Your task to perform on an android device: open app "McDonald's" (install if not already installed), go to login, and select forgot password Image 0: 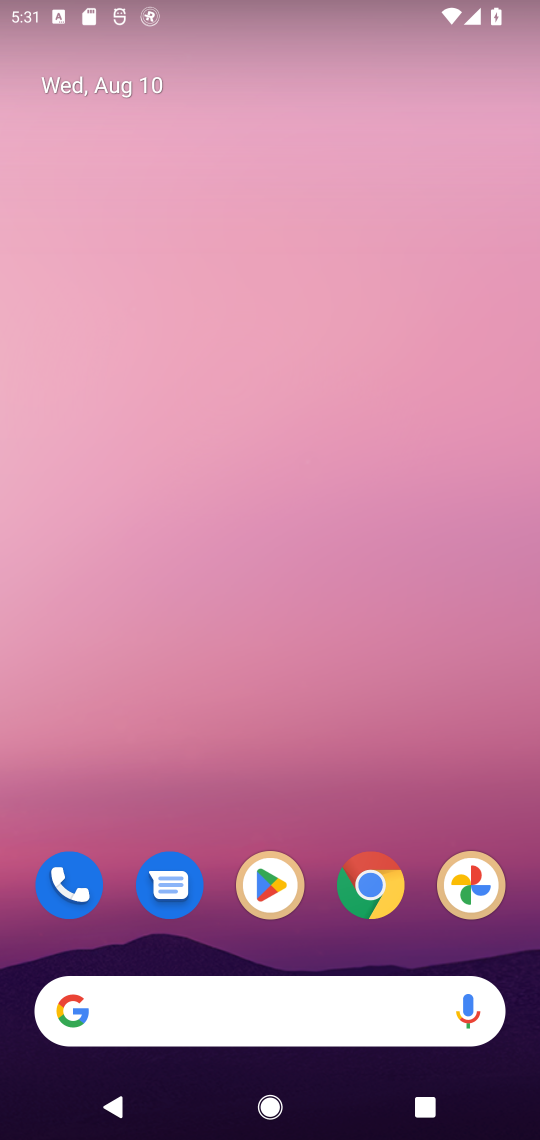
Step 0: click (287, 865)
Your task to perform on an android device: open app "McDonald's" (install if not already installed), go to login, and select forgot password Image 1: 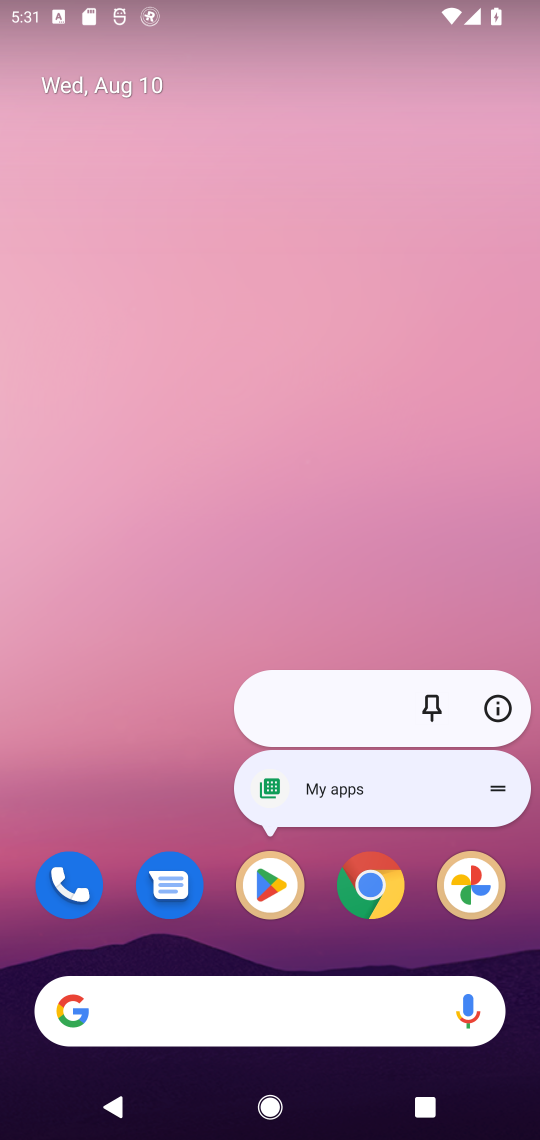
Step 1: click (281, 888)
Your task to perform on an android device: open app "McDonald's" (install if not already installed), go to login, and select forgot password Image 2: 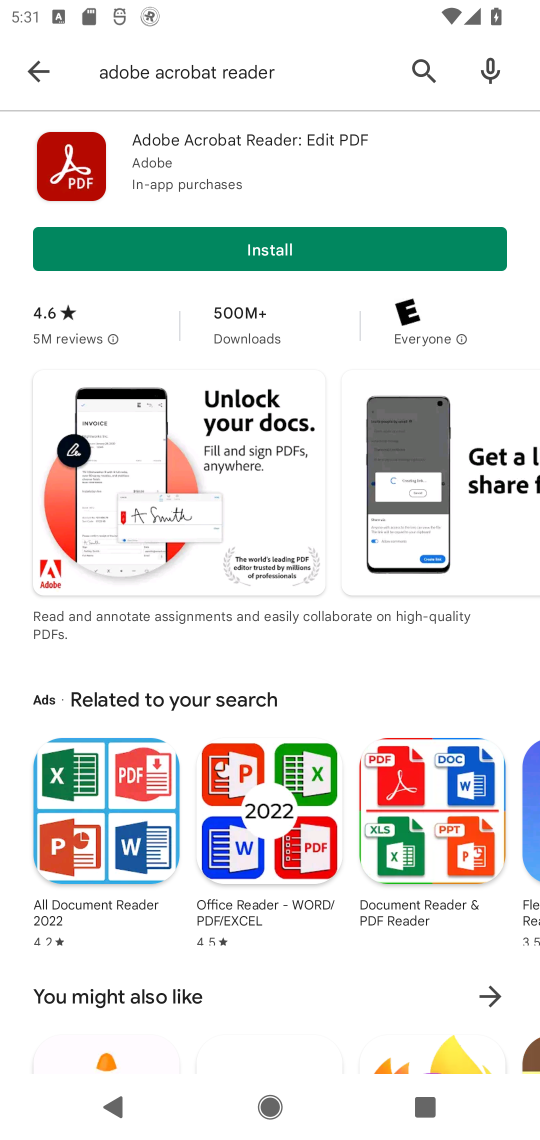
Step 2: click (414, 73)
Your task to perform on an android device: open app "McDonald's" (install if not already installed), go to login, and select forgot password Image 3: 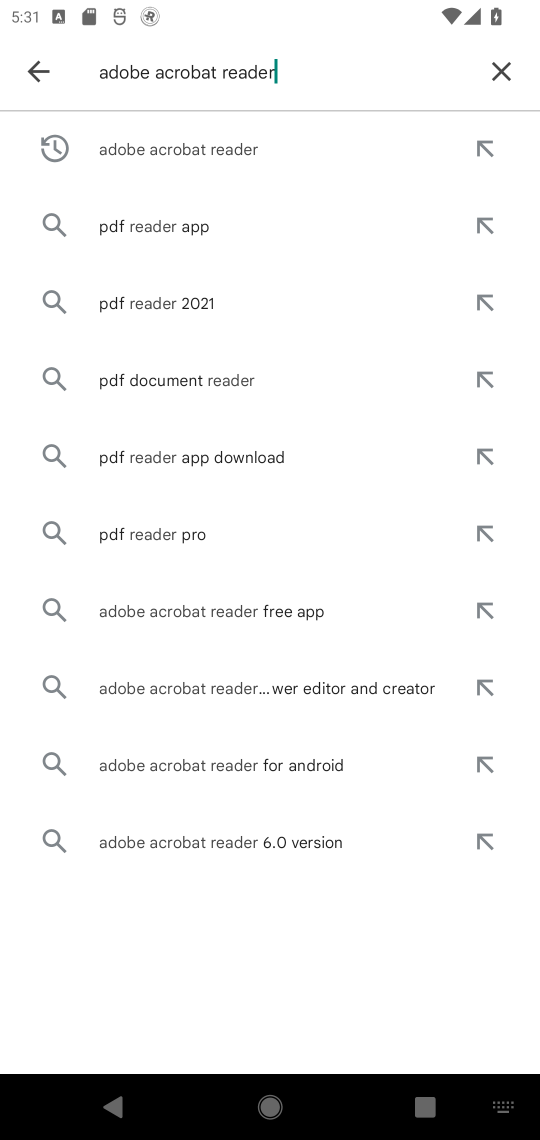
Step 3: click (487, 62)
Your task to perform on an android device: open app "McDonald's" (install if not already installed), go to login, and select forgot password Image 4: 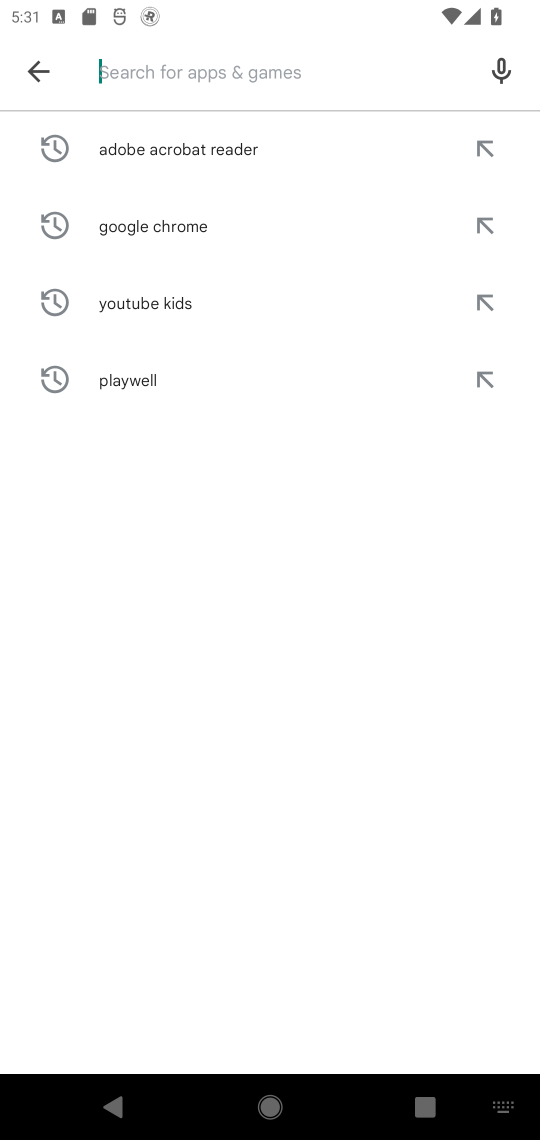
Step 4: click (143, 82)
Your task to perform on an android device: open app "McDonald's" (install if not already installed), go to login, and select forgot password Image 5: 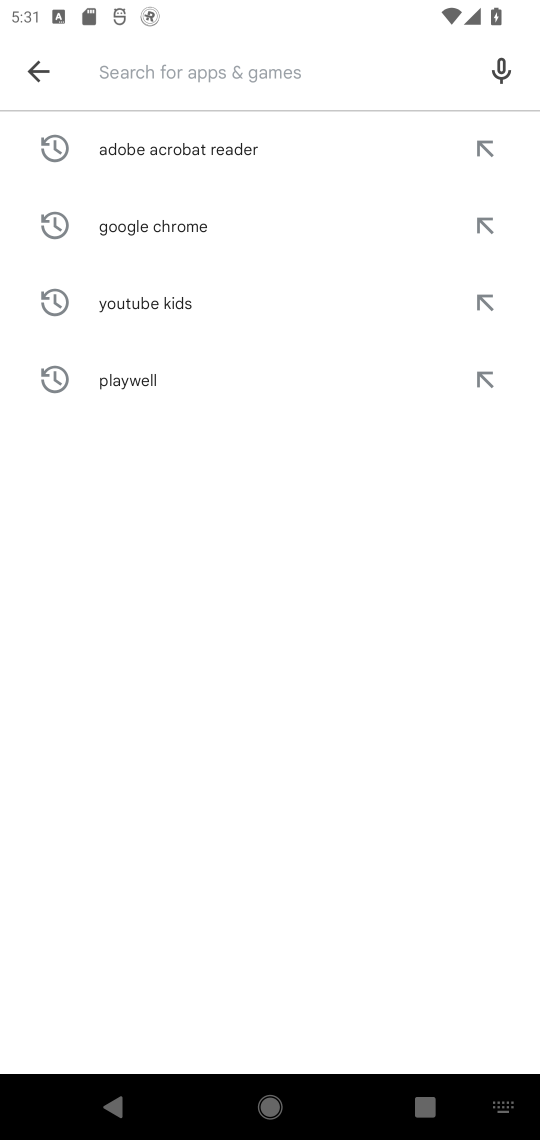
Step 5: type "McDonald's"
Your task to perform on an android device: open app "McDonald's" (install if not already installed), go to login, and select forgot password Image 6: 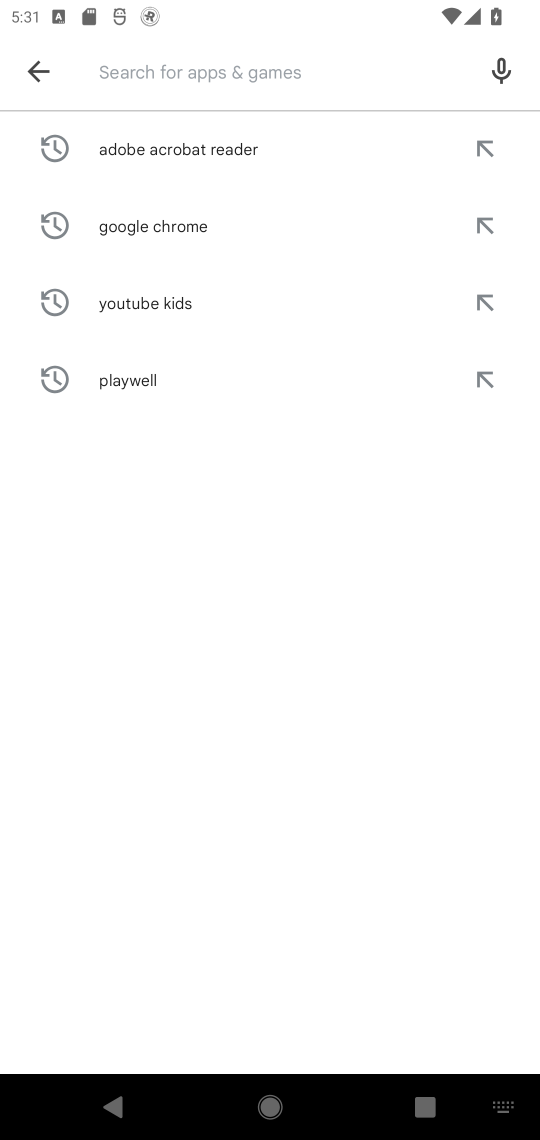
Step 6: click (194, 697)
Your task to perform on an android device: open app "McDonald's" (install if not already installed), go to login, and select forgot password Image 7: 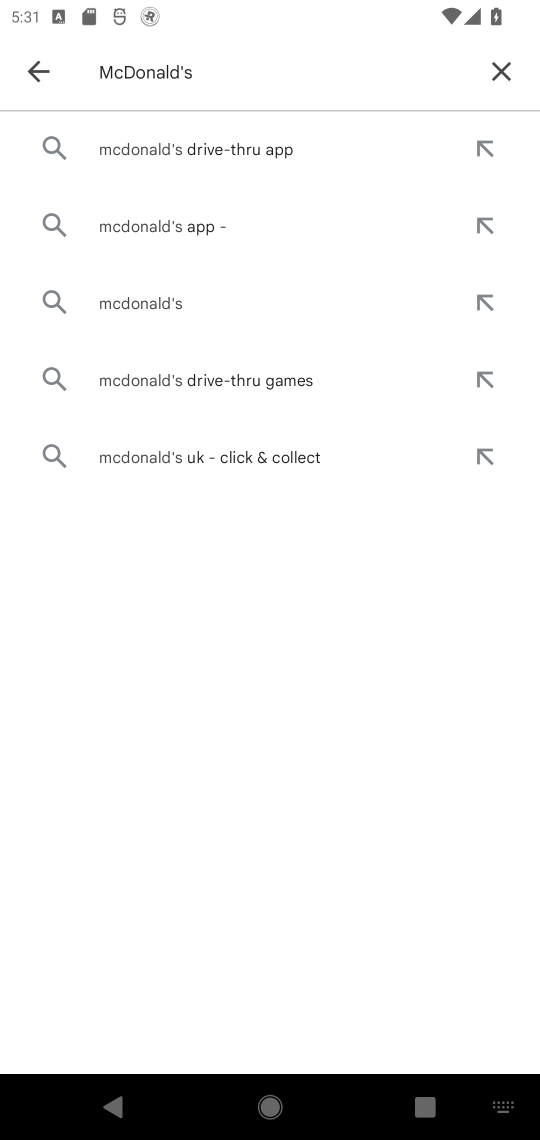
Step 7: click (195, 301)
Your task to perform on an android device: open app "McDonald's" (install if not already installed), go to login, and select forgot password Image 8: 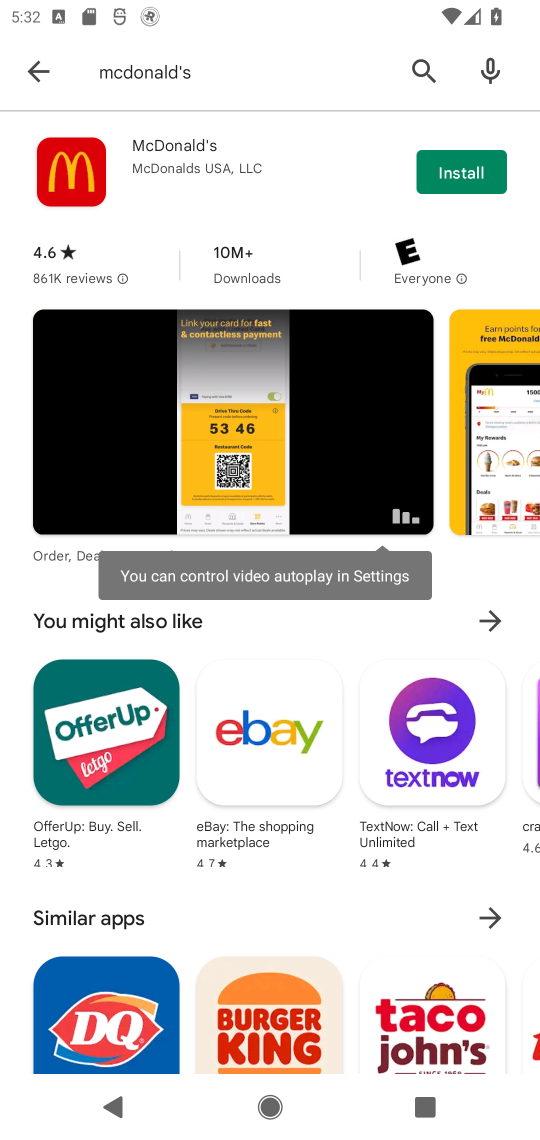
Step 8: click (437, 169)
Your task to perform on an android device: open app "McDonald's" (install if not already installed), go to login, and select forgot password Image 9: 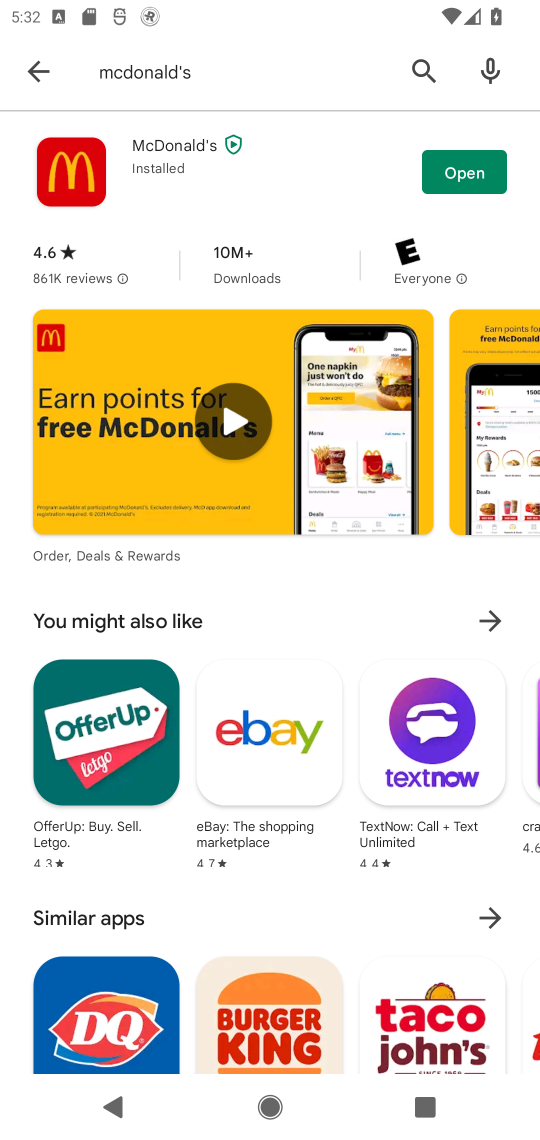
Step 9: click (472, 174)
Your task to perform on an android device: open app "McDonald's" (install if not already installed), go to login, and select forgot password Image 10: 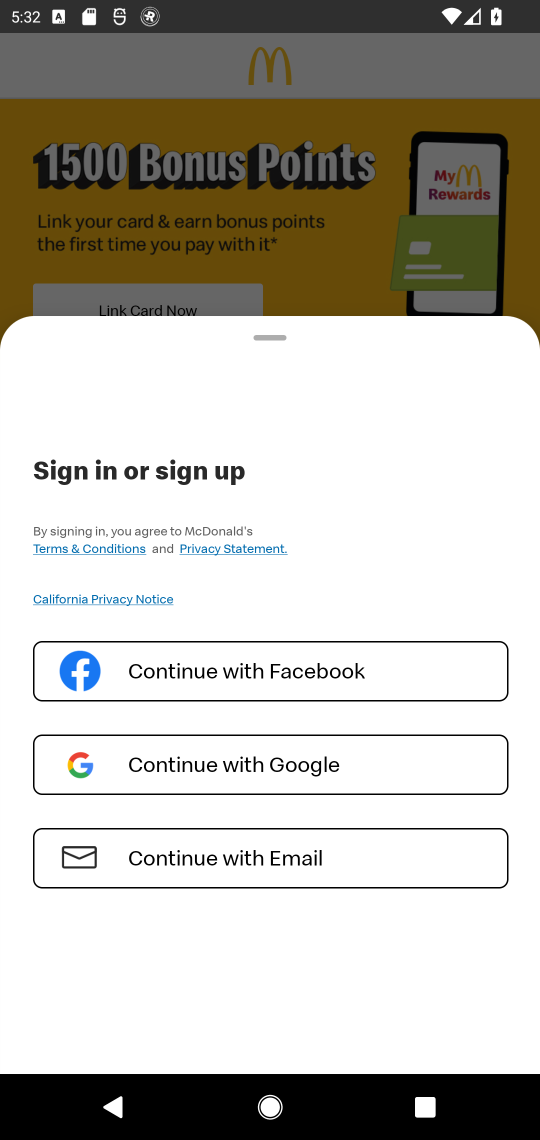
Step 10: drag from (197, 950) to (353, 228)
Your task to perform on an android device: open app "McDonald's" (install if not already installed), go to login, and select forgot password Image 11: 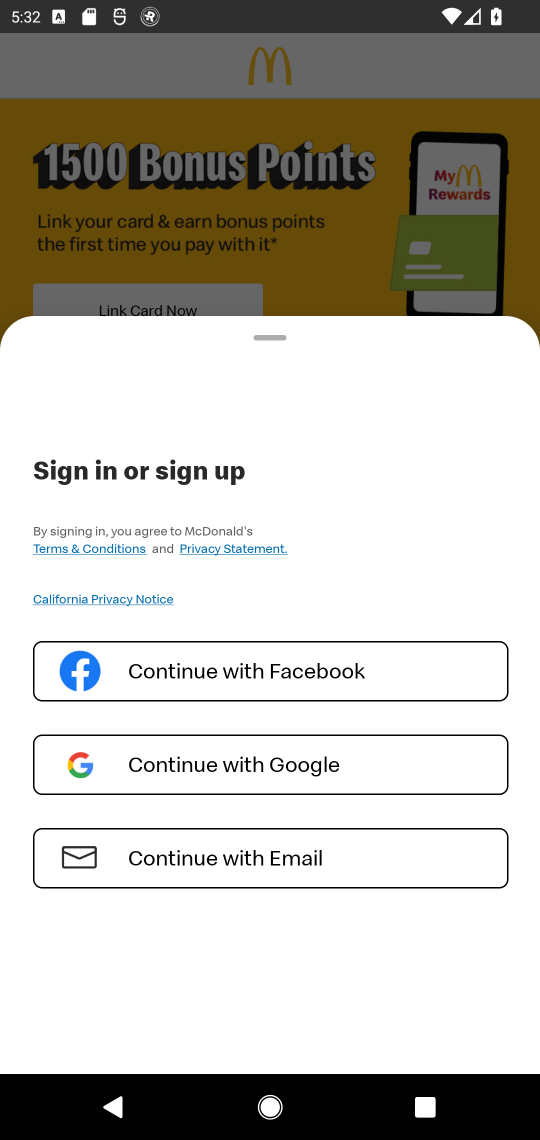
Step 11: click (205, 853)
Your task to perform on an android device: open app "McDonald's" (install if not already installed), go to login, and select forgot password Image 12: 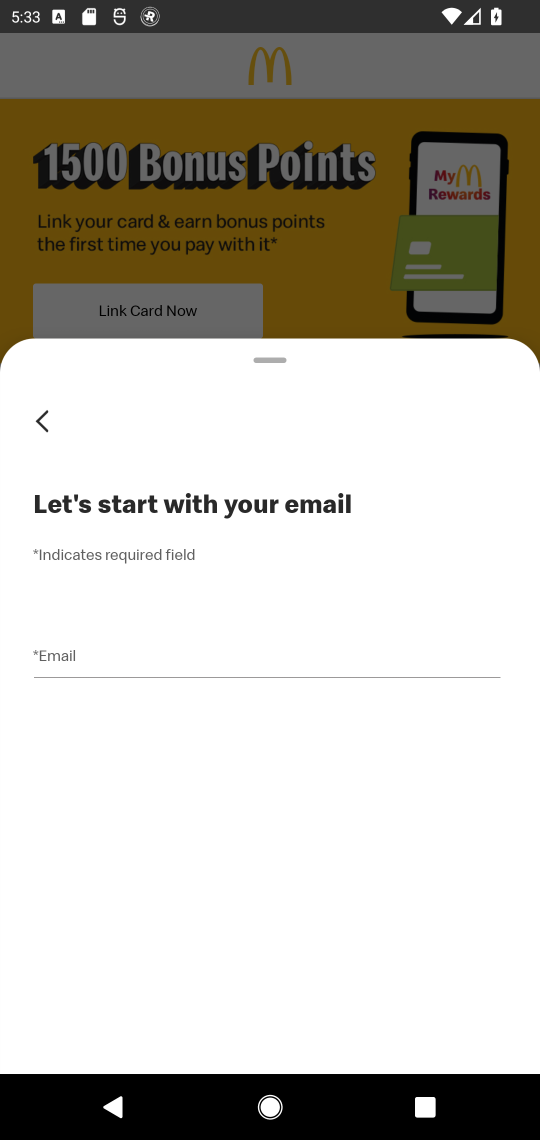
Step 12: click (41, 431)
Your task to perform on an android device: open app "McDonald's" (install if not already installed), go to login, and select forgot password Image 13: 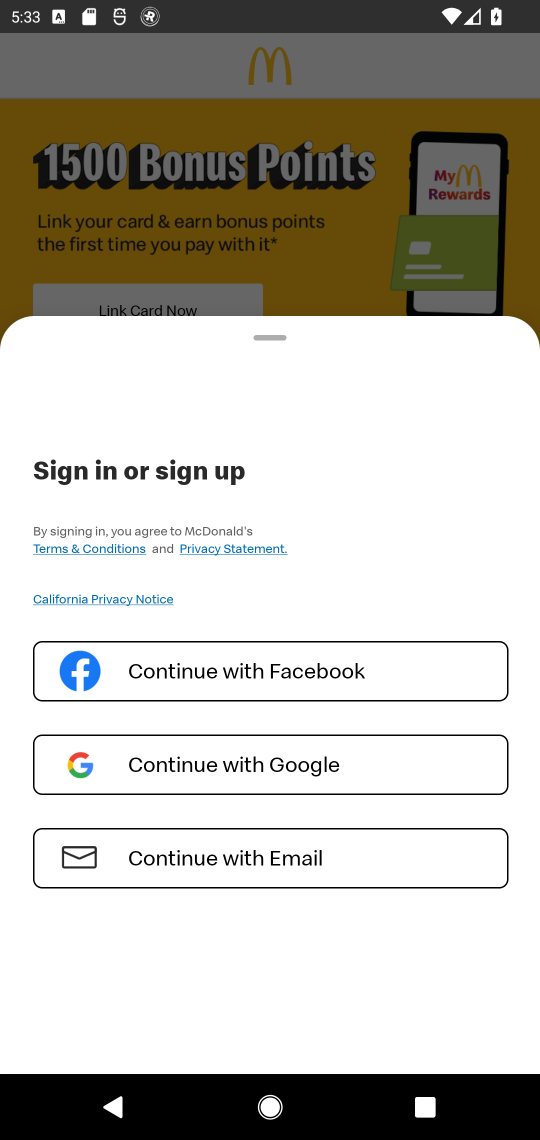
Step 13: click (216, 678)
Your task to perform on an android device: open app "McDonald's" (install if not already installed), go to login, and select forgot password Image 14: 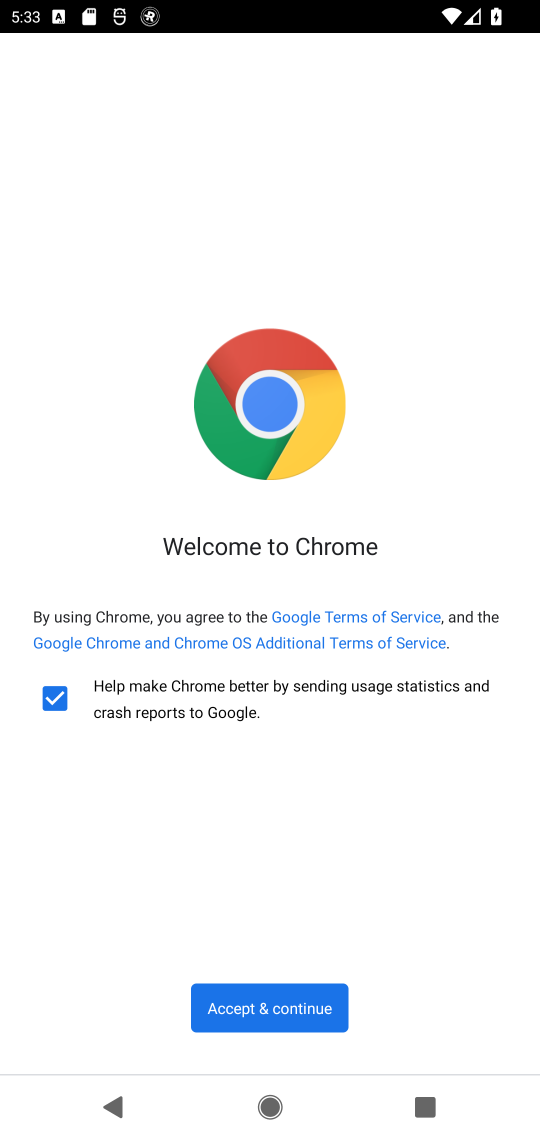
Step 14: click (275, 980)
Your task to perform on an android device: open app "McDonald's" (install if not already installed), go to login, and select forgot password Image 15: 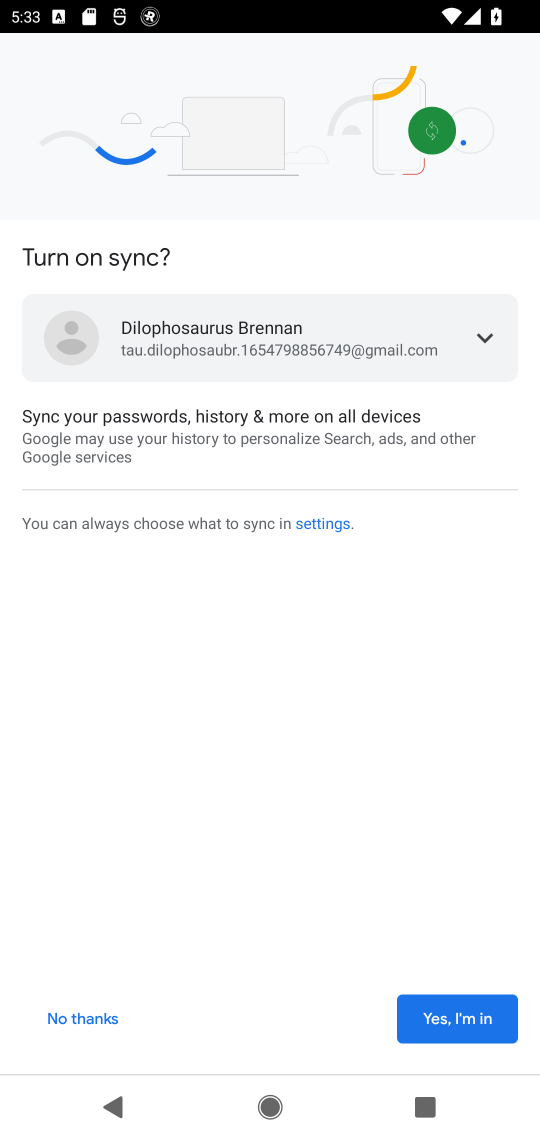
Step 15: click (437, 1005)
Your task to perform on an android device: open app "McDonald's" (install if not already installed), go to login, and select forgot password Image 16: 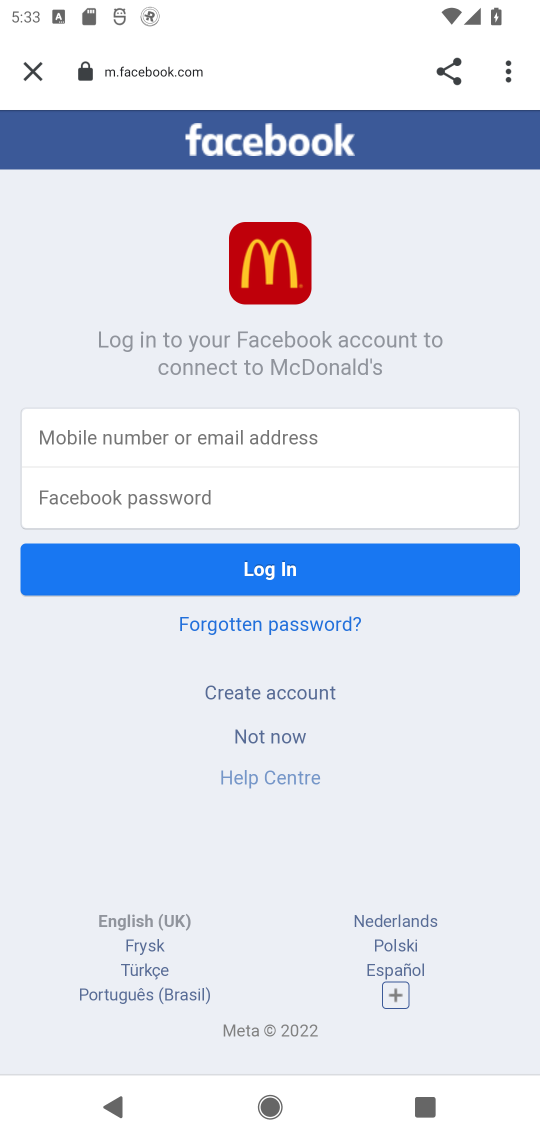
Step 16: click (289, 631)
Your task to perform on an android device: open app "McDonald's" (install if not already installed), go to login, and select forgot password Image 17: 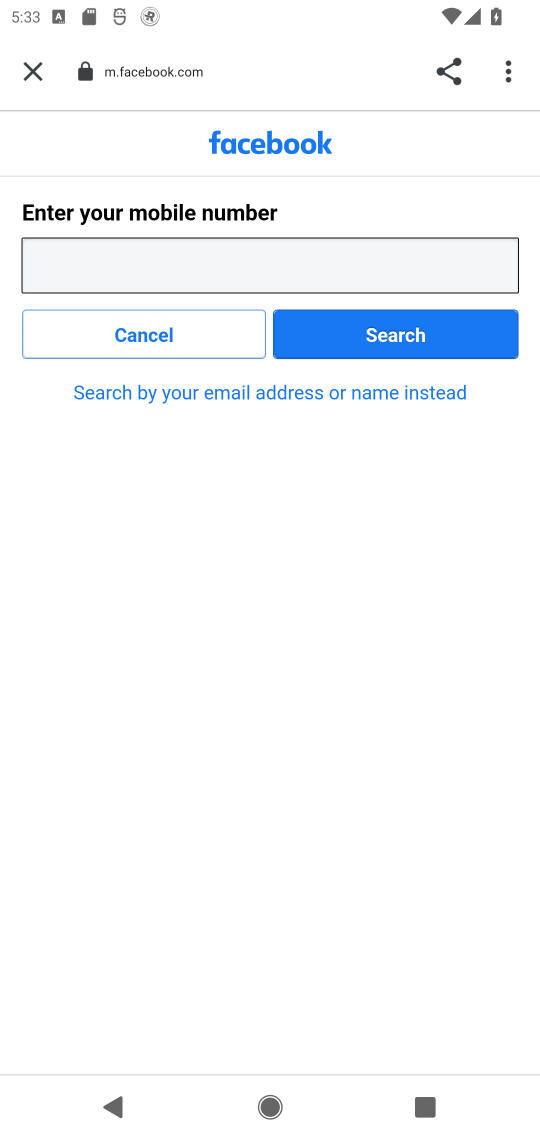
Step 17: task complete